Your task to perform on an android device: Open calendar and show me the second week of next month Image 0: 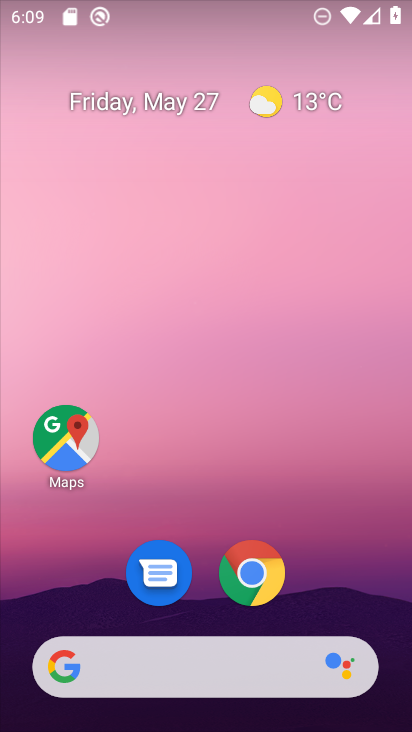
Step 0: drag from (210, 617) to (250, 41)
Your task to perform on an android device: Open calendar and show me the second week of next month Image 1: 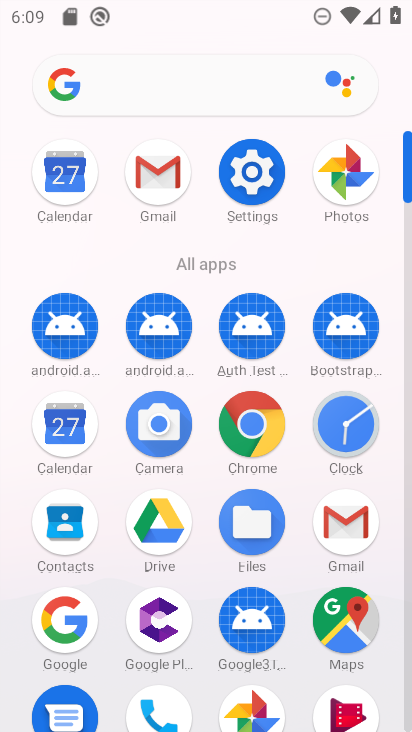
Step 1: click (58, 424)
Your task to perform on an android device: Open calendar and show me the second week of next month Image 2: 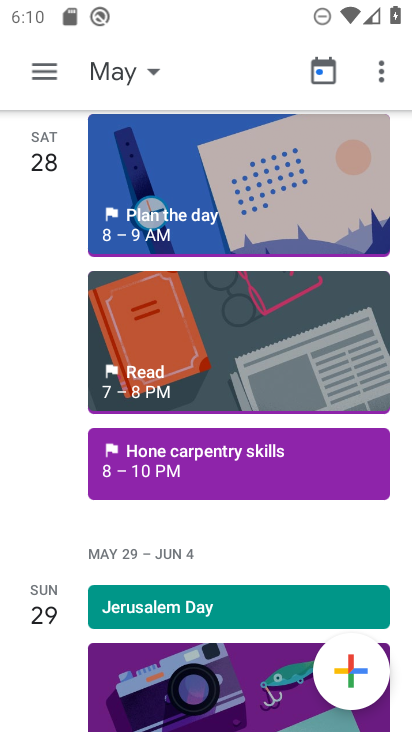
Step 2: click (24, 71)
Your task to perform on an android device: Open calendar and show me the second week of next month Image 3: 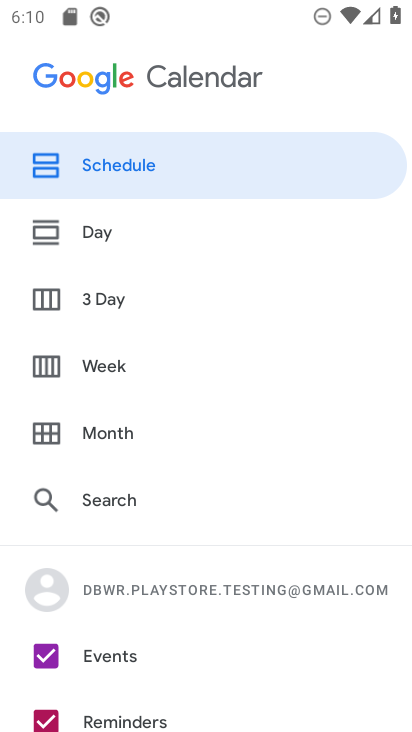
Step 3: click (91, 356)
Your task to perform on an android device: Open calendar and show me the second week of next month Image 4: 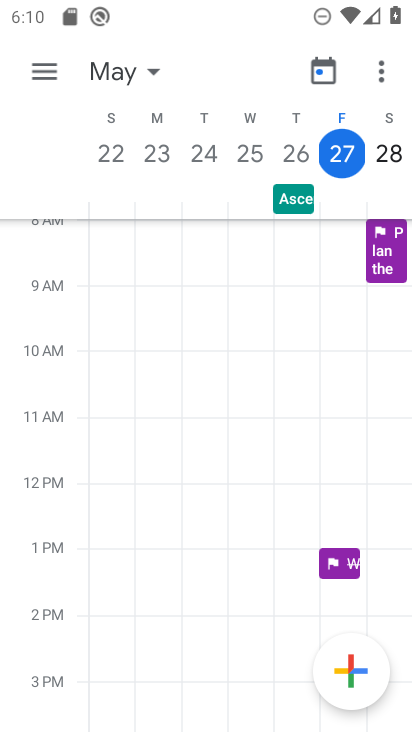
Step 4: drag from (339, 147) to (18, 164)
Your task to perform on an android device: Open calendar and show me the second week of next month Image 5: 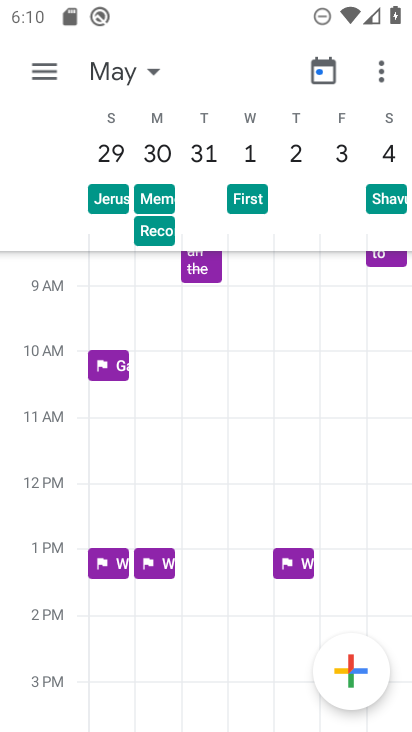
Step 5: drag from (386, 152) to (136, 151)
Your task to perform on an android device: Open calendar and show me the second week of next month Image 6: 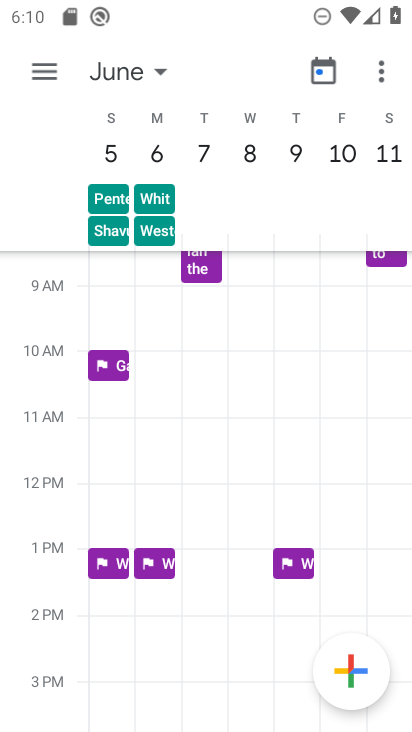
Step 6: click (112, 152)
Your task to perform on an android device: Open calendar and show me the second week of next month Image 7: 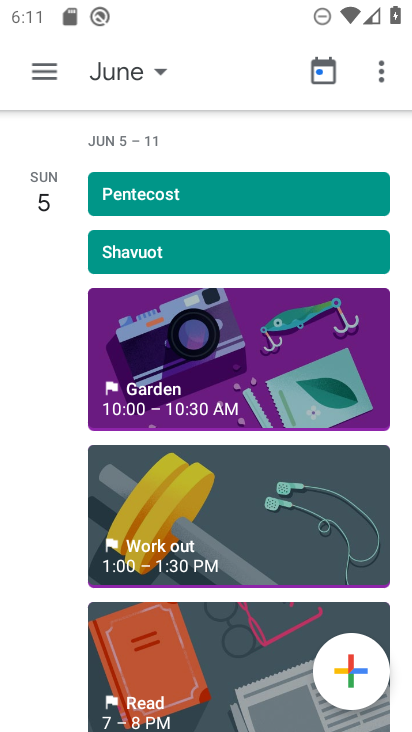
Step 7: task complete